Your task to perform on an android device: Search for seafood restaurants on Google Maps Image 0: 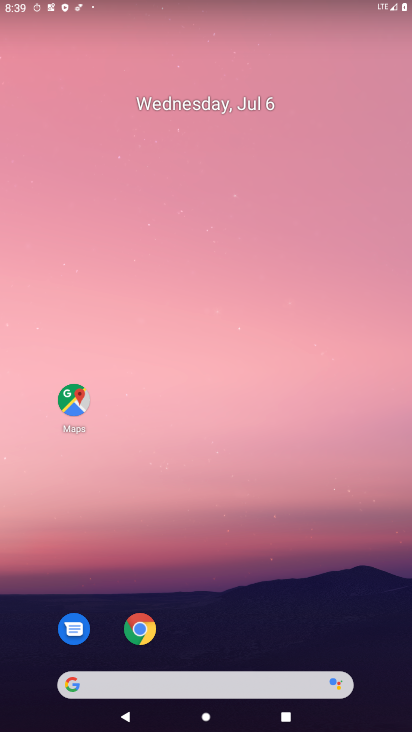
Step 0: drag from (252, 730) to (250, 603)
Your task to perform on an android device: Search for seafood restaurants on Google Maps Image 1: 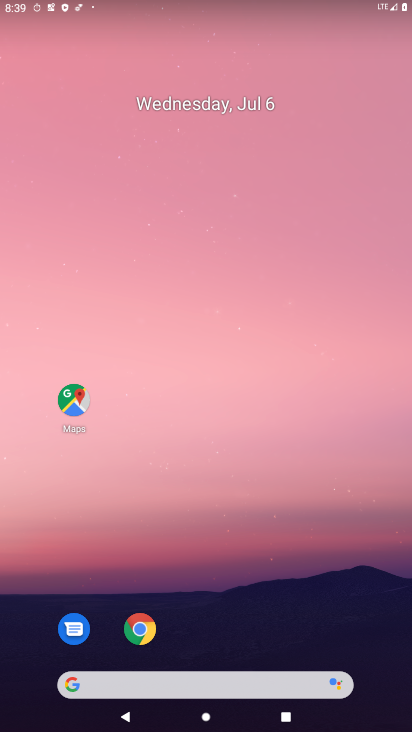
Step 1: drag from (254, 719) to (243, 71)
Your task to perform on an android device: Search for seafood restaurants on Google Maps Image 2: 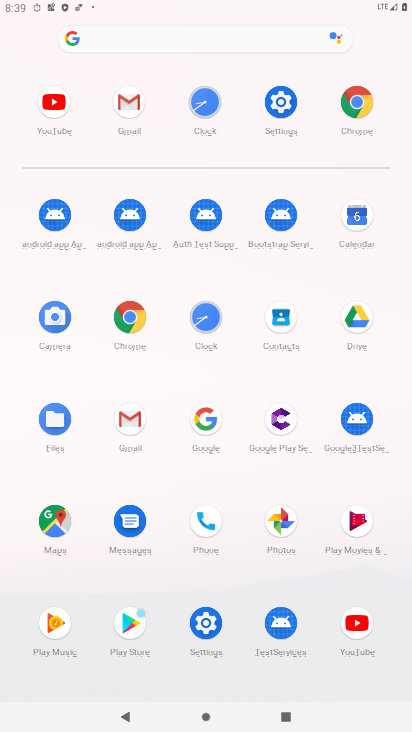
Step 2: click (48, 524)
Your task to perform on an android device: Search for seafood restaurants on Google Maps Image 3: 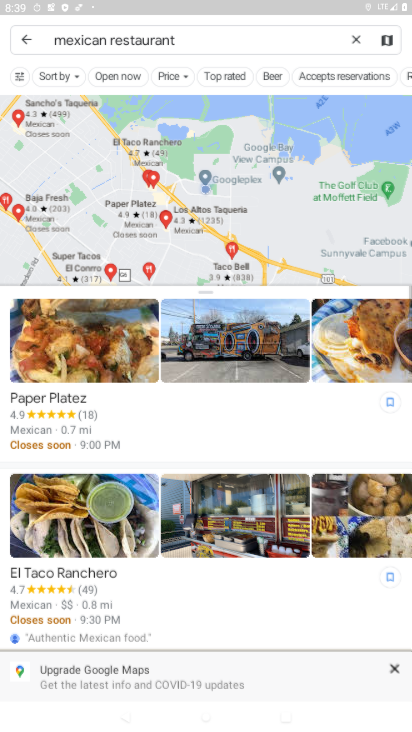
Step 3: click (354, 38)
Your task to perform on an android device: Search for seafood restaurants on Google Maps Image 4: 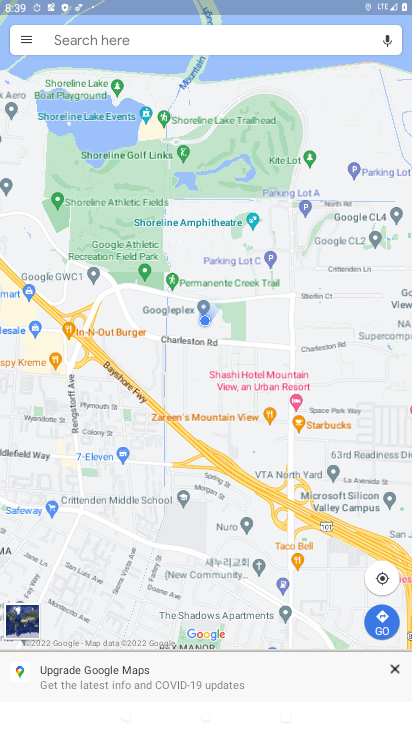
Step 4: click (216, 40)
Your task to perform on an android device: Search for seafood restaurants on Google Maps Image 5: 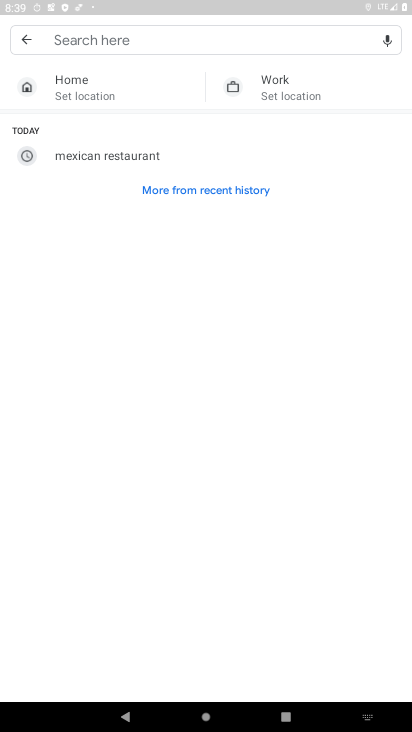
Step 5: type "seafood restaurants"
Your task to perform on an android device: Search for seafood restaurants on Google Maps Image 6: 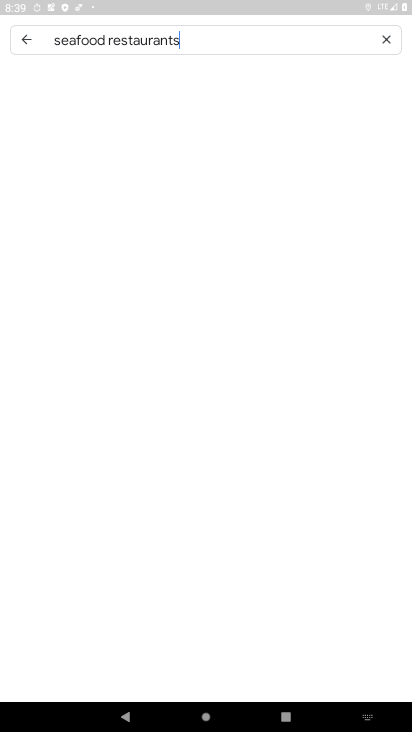
Step 6: type ""
Your task to perform on an android device: Search for seafood restaurants on Google Maps Image 7: 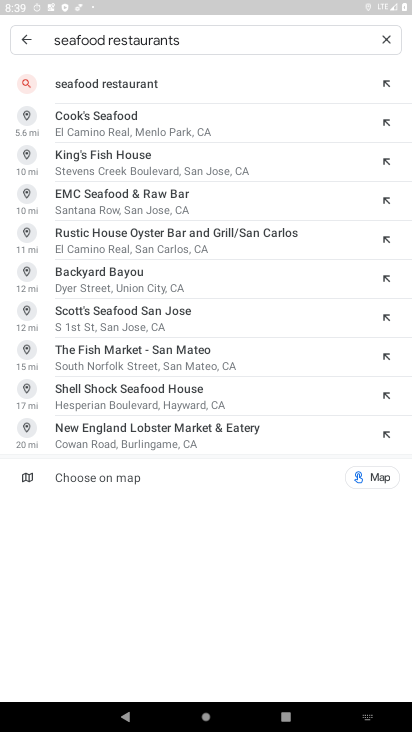
Step 7: click (108, 84)
Your task to perform on an android device: Search for seafood restaurants on Google Maps Image 8: 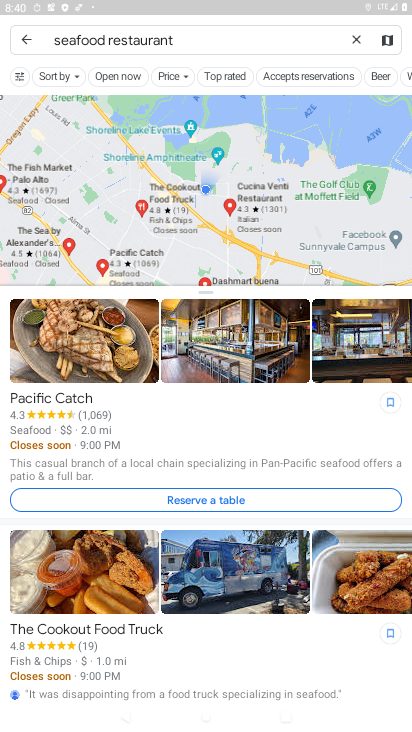
Step 8: task complete